Your task to perform on an android device: Open Yahoo.com Image 0: 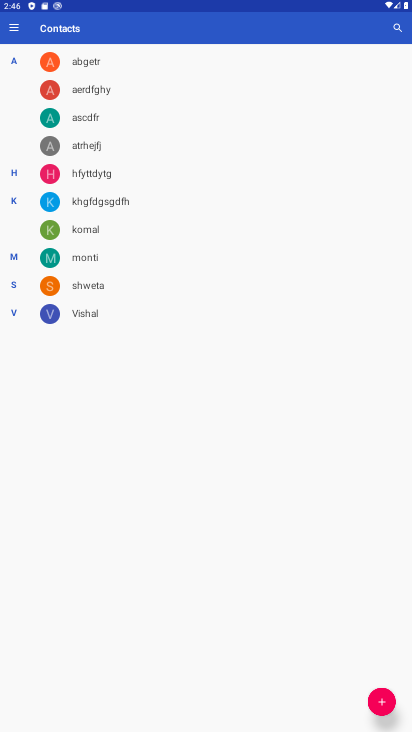
Step 0: press home button
Your task to perform on an android device: Open Yahoo.com Image 1: 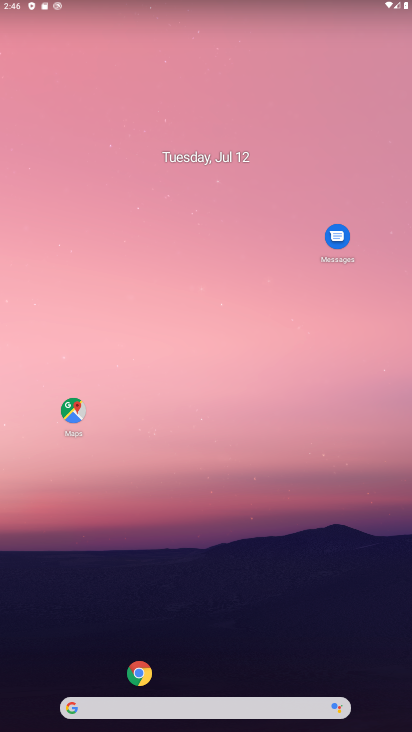
Step 1: click (97, 709)
Your task to perform on an android device: Open Yahoo.com Image 2: 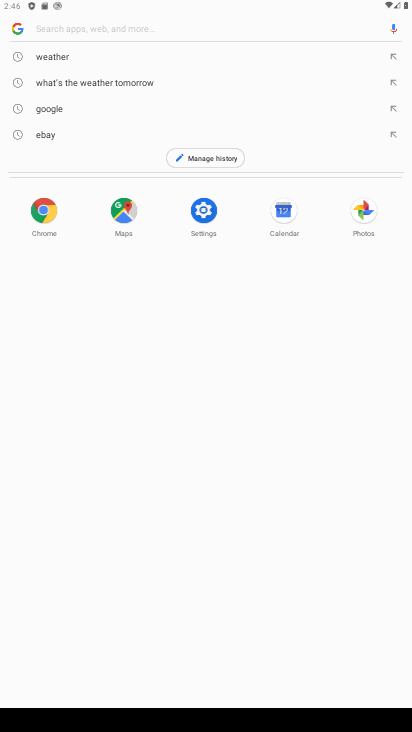
Step 2: type "Yahoo.com"
Your task to perform on an android device: Open Yahoo.com Image 3: 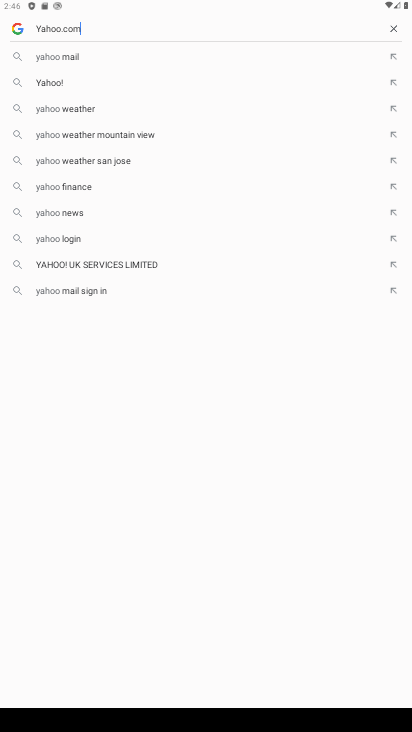
Step 3: type ""
Your task to perform on an android device: Open Yahoo.com Image 4: 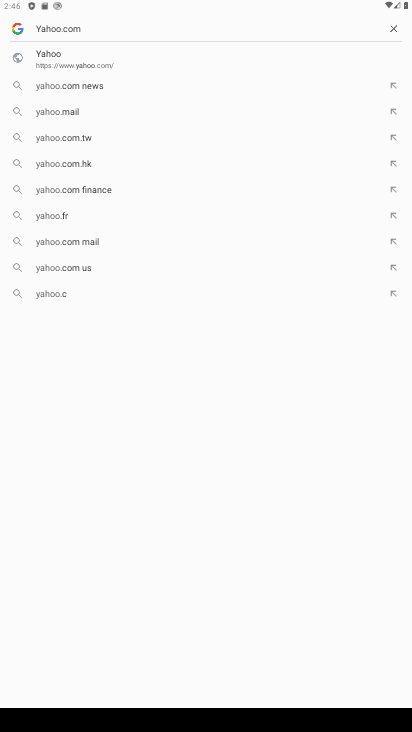
Step 4: click (77, 57)
Your task to perform on an android device: Open Yahoo.com Image 5: 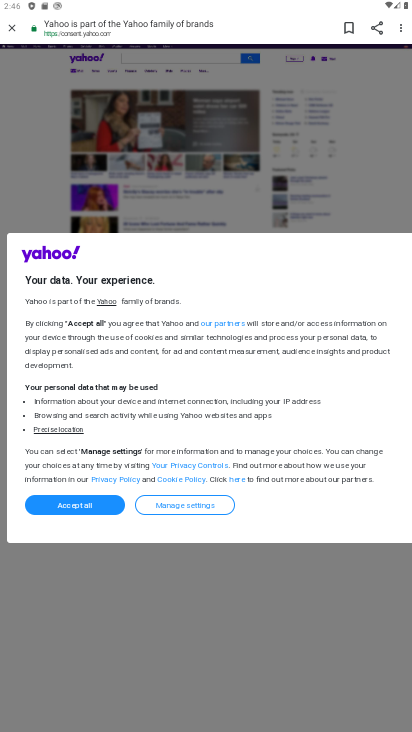
Step 5: task complete